Your task to perform on an android device: Open Amazon Image 0: 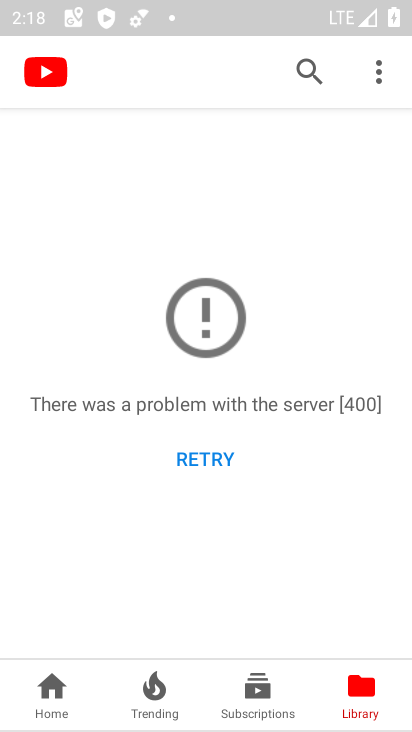
Step 0: press home button
Your task to perform on an android device: Open Amazon Image 1: 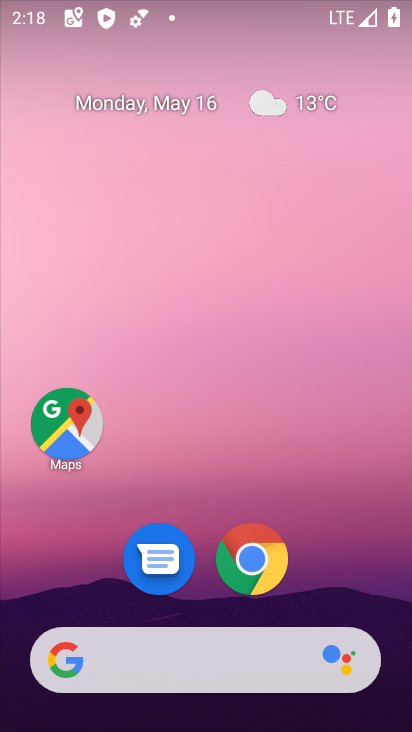
Step 1: click (262, 551)
Your task to perform on an android device: Open Amazon Image 2: 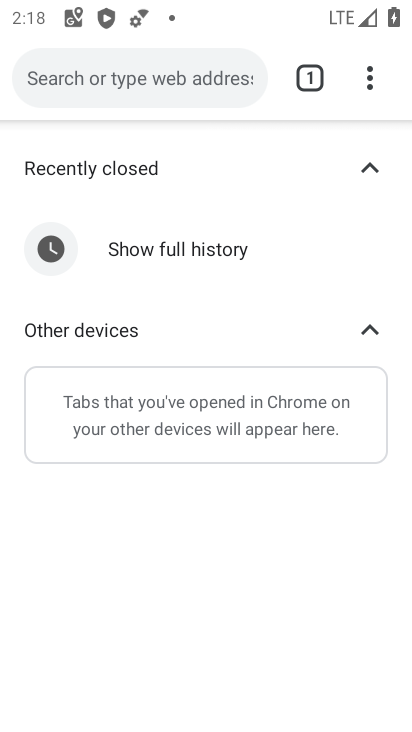
Step 2: click (314, 81)
Your task to perform on an android device: Open Amazon Image 3: 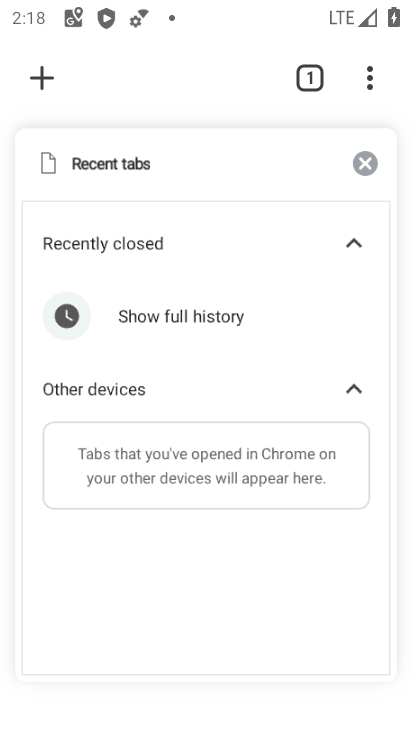
Step 3: click (47, 78)
Your task to perform on an android device: Open Amazon Image 4: 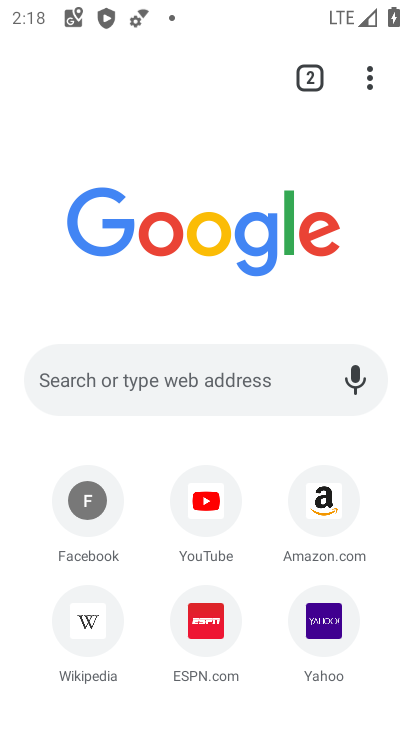
Step 4: click (326, 491)
Your task to perform on an android device: Open Amazon Image 5: 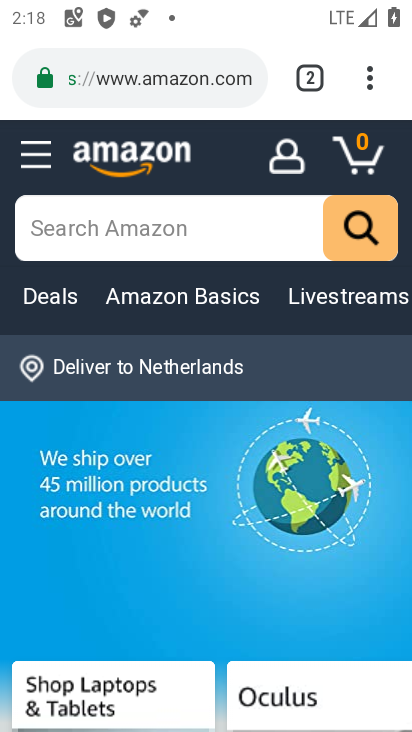
Step 5: task complete